Your task to perform on an android device: toggle sleep mode Image 0: 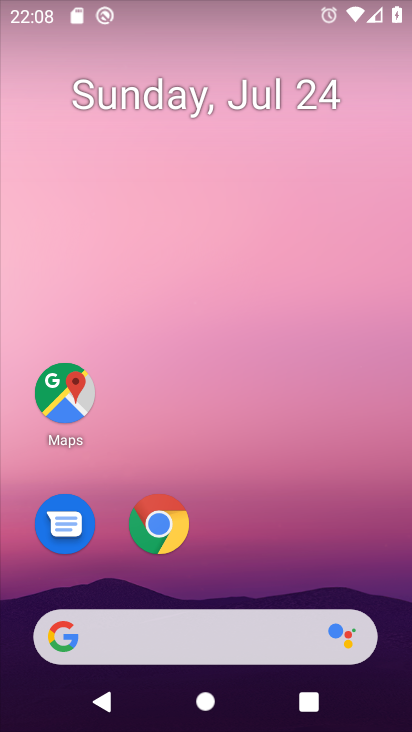
Step 0: drag from (305, 561) to (289, 49)
Your task to perform on an android device: toggle sleep mode Image 1: 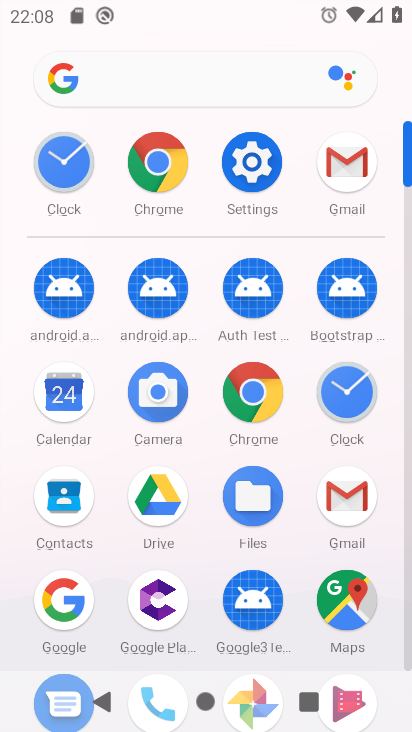
Step 1: click (253, 164)
Your task to perform on an android device: toggle sleep mode Image 2: 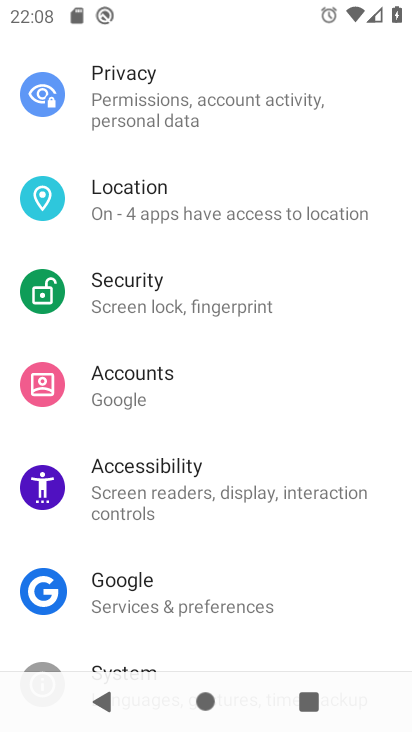
Step 2: drag from (253, 164) to (234, 618)
Your task to perform on an android device: toggle sleep mode Image 3: 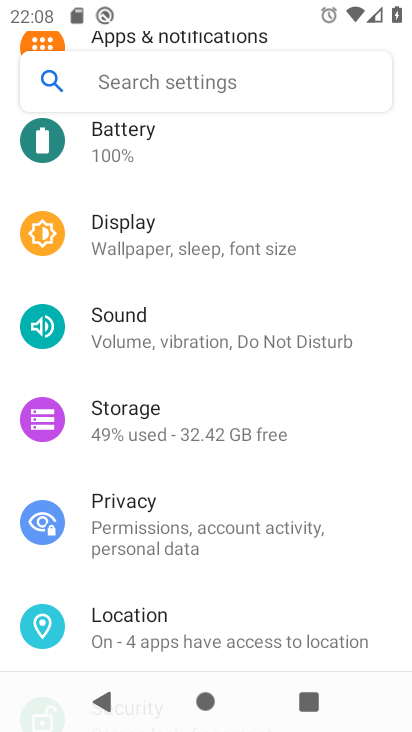
Step 3: click (223, 243)
Your task to perform on an android device: toggle sleep mode Image 4: 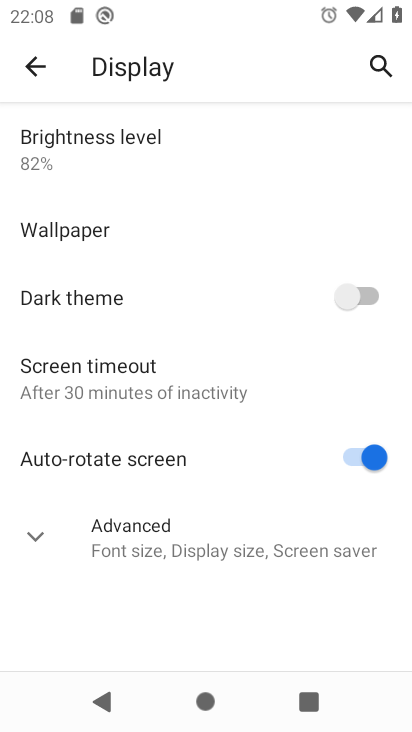
Step 4: click (35, 536)
Your task to perform on an android device: toggle sleep mode Image 5: 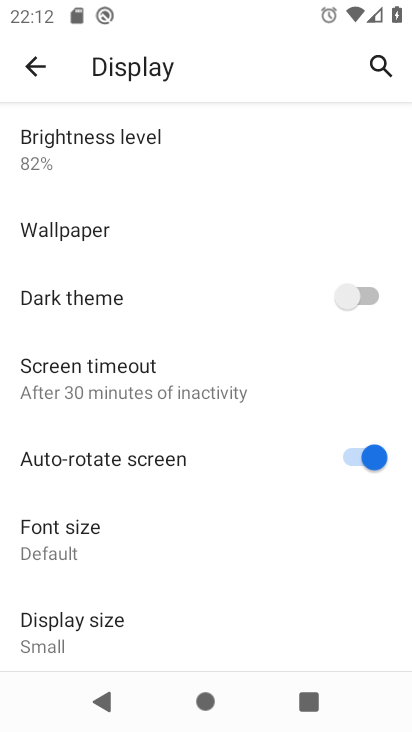
Step 5: task complete